Your task to perform on an android device: Show me the alarms in the clock app Image 0: 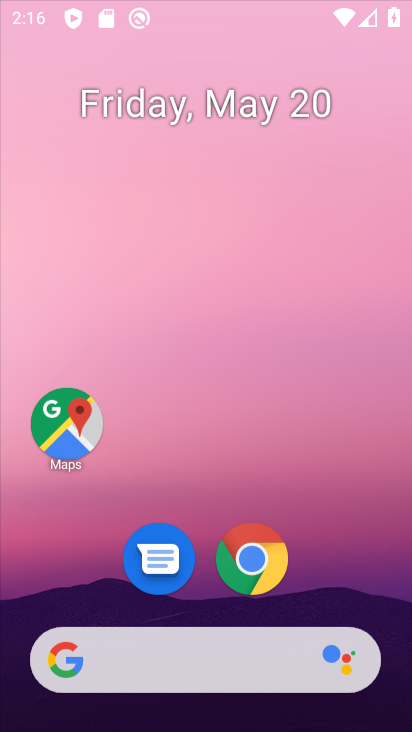
Step 0: click (207, 11)
Your task to perform on an android device: Show me the alarms in the clock app Image 1: 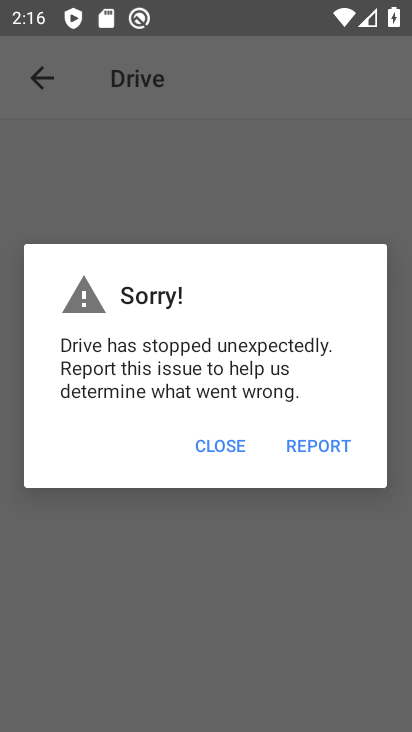
Step 1: press home button
Your task to perform on an android device: Show me the alarms in the clock app Image 2: 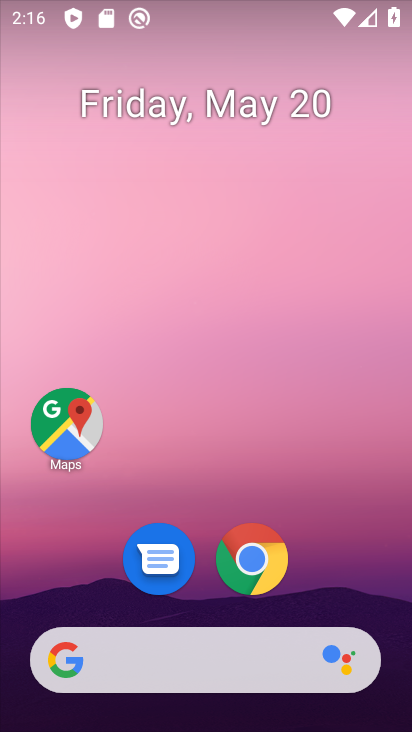
Step 2: drag from (308, 548) to (258, 75)
Your task to perform on an android device: Show me the alarms in the clock app Image 3: 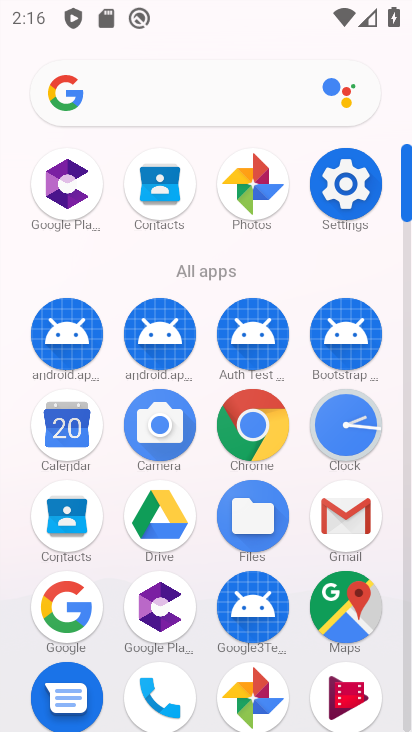
Step 3: click (346, 426)
Your task to perform on an android device: Show me the alarms in the clock app Image 4: 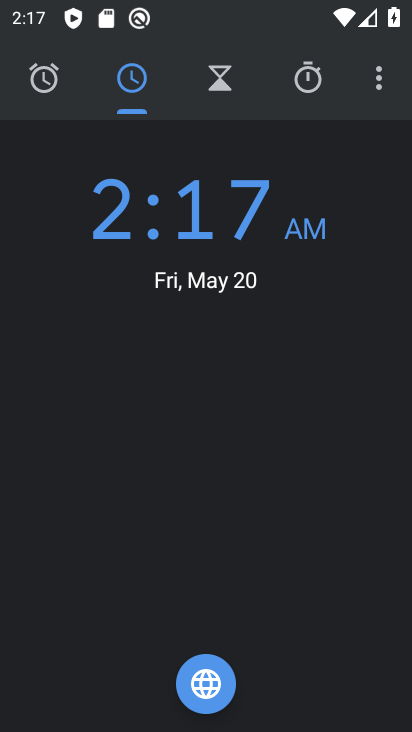
Step 4: click (47, 76)
Your task to perform on an android device: Show me the alarms in the clock app Image 5: 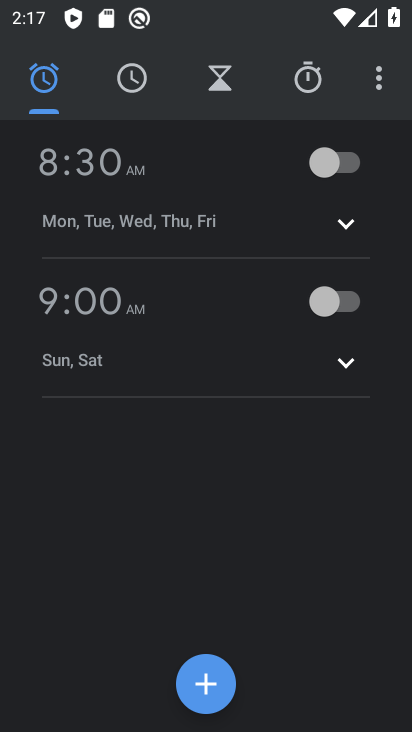
Step 5: task complete